Your task to perform on an android device: Open Maps and search for coffee Image 0: 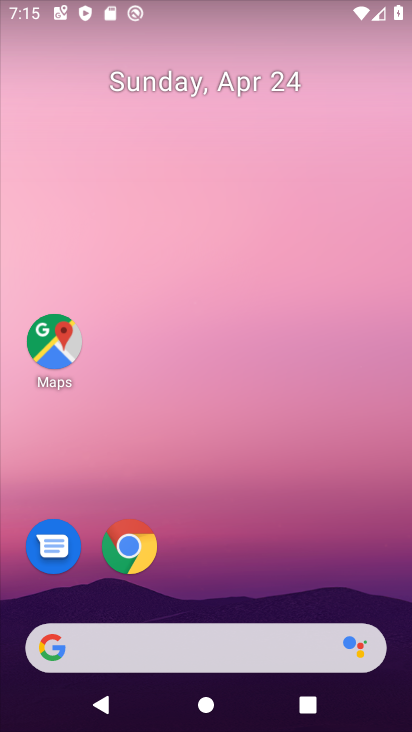
Step 0: click (50, 337)
Your task to perform on an android device: Open Maps and search for coffee Image 1: 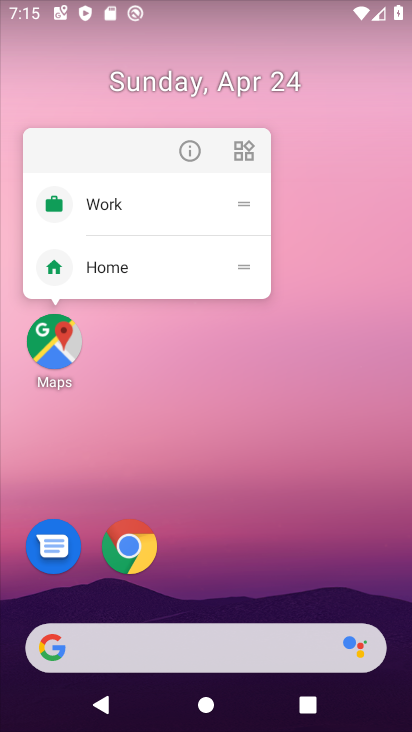
Step 1: click (41, 346)
Your task to perform on an android device: Open Maps and search for coffee Image 2: 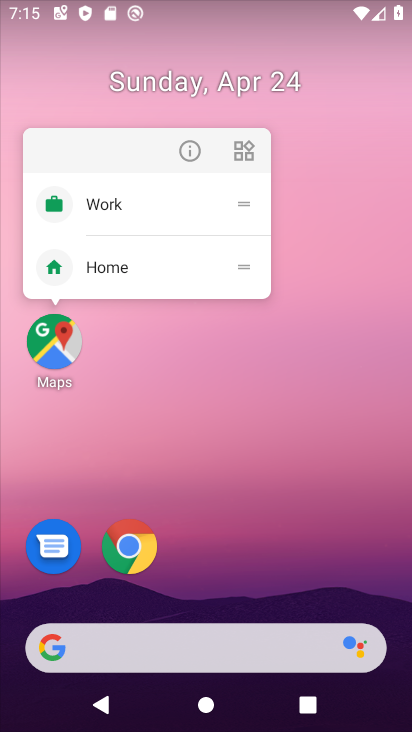
Step 2: click (56, 341)
Your task to perform on an android device: Open Maps and search for coffee Image 3: 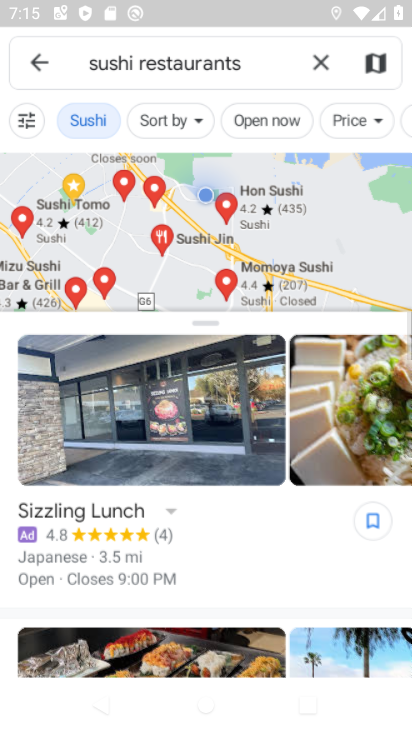
Step 3: click (319, 62)
Your task to perform on an android device: Open Maps and search for coffee Image 4: 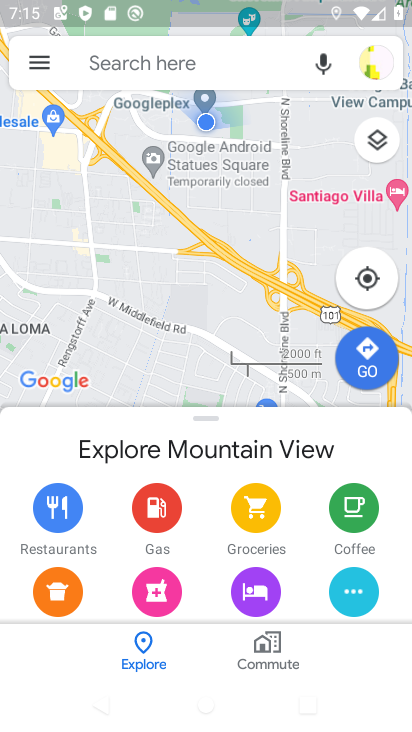
Step 4: click (227, 56)
Your task to perform on an android device: Open Maps and search for coffee Image 5: 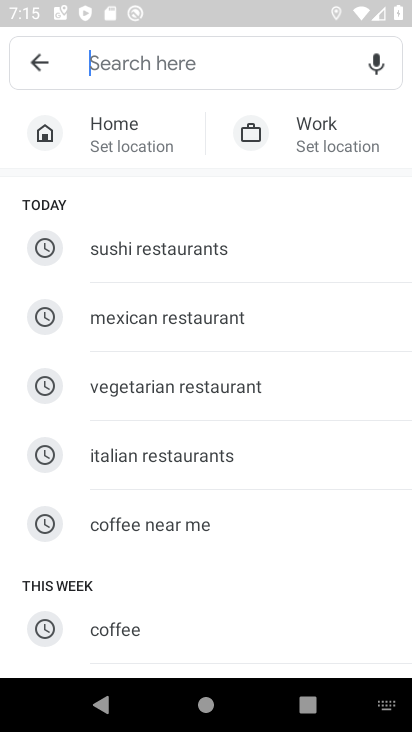
Step 5: click (127, 632)
Your task to perform on an android device: Open Maps and search for coffee Image 6: 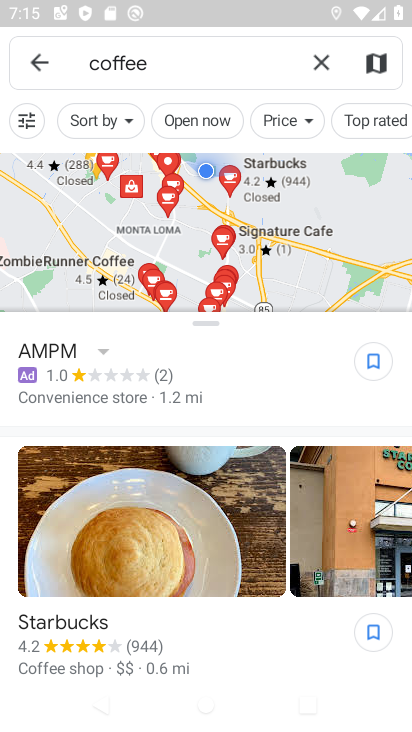
Step 6: task complete